Your task to perform on an android device: Open display settings Image 0: 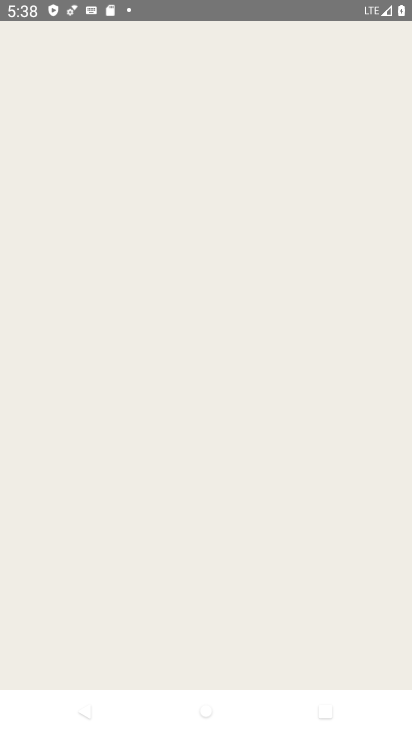
Step 0: press home button
Your task to perform on an android device: Open display settings Image 1: 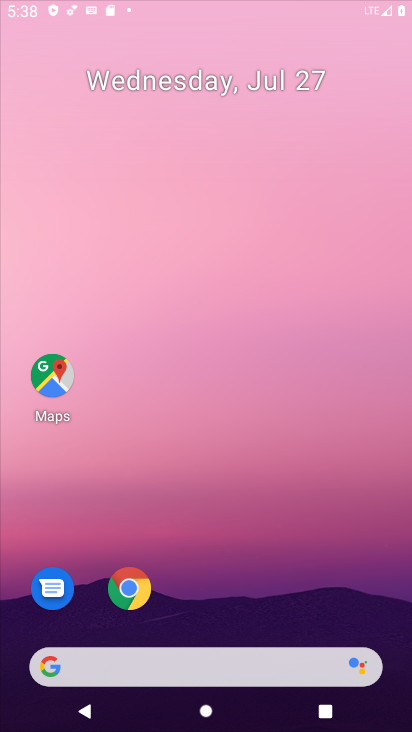
Step 1: drag from (213, 689) to (274, 0)
Your task to perform on an android device: Open display settings Image 2: 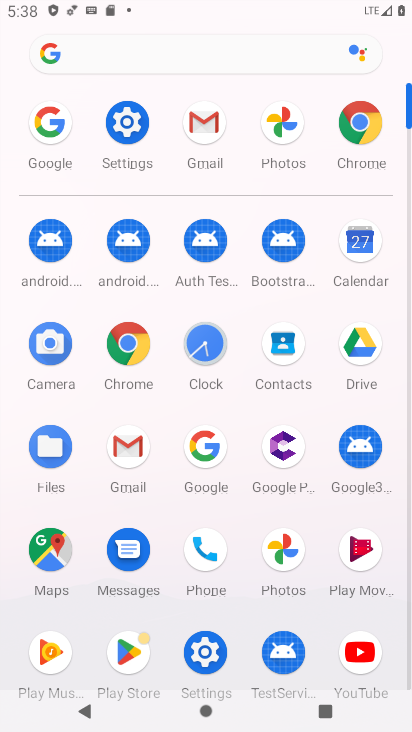
Step 2: click (128, 116)
Your task to perform on an android device: Open display settings Image 3: 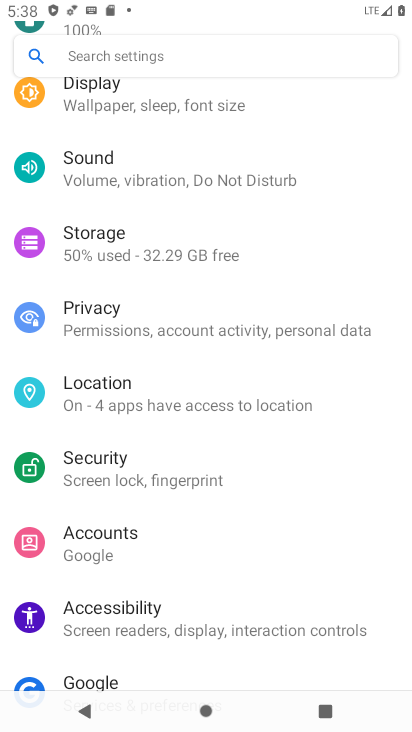
Step 3: click (202, 110)
Your task to perform on an android device: Open display settings Image 4: 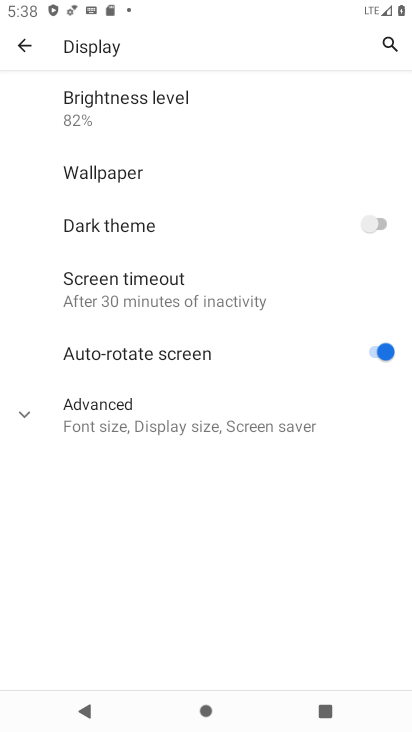
Step 4: task complete